Your task to perform on an android device: open a bookmark in the chrome app Image 0: 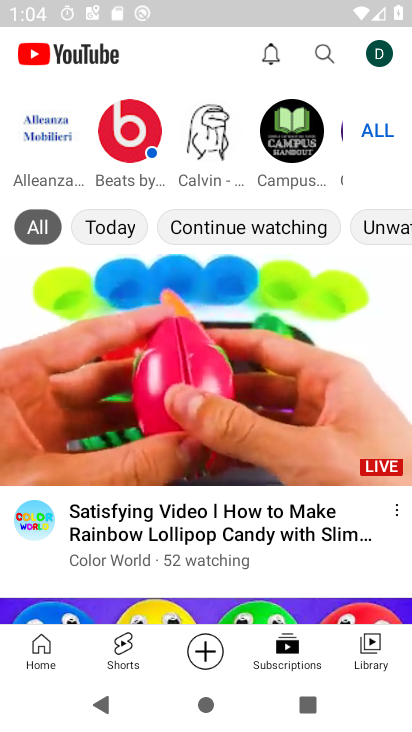
Step 0: press home button
Your task to perform on an android device: open a bookmark in the chrome app Image 1: 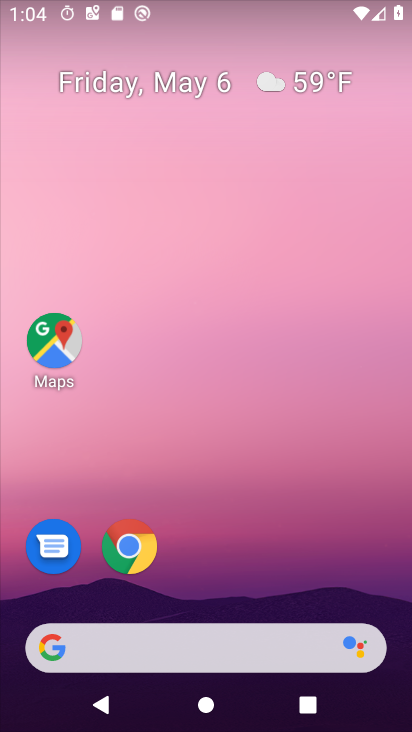
Step 1: click (132, 548)
Your task to perform on an android device: open a bookmark in the chrome app Image 2: 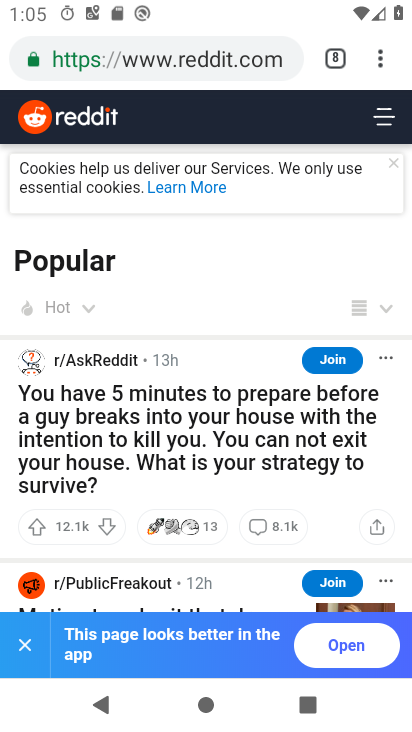
Step 2: click (388, 64)
Your task to perform on an android device: open a bookmark in the chrome app Image 3: 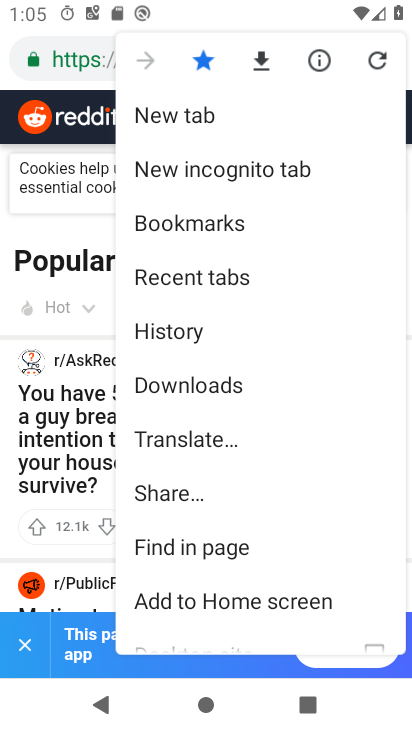
Step 3: click (212, 234)
Your task to perform on an android device: open a bookmark in the chrome app Image 4: 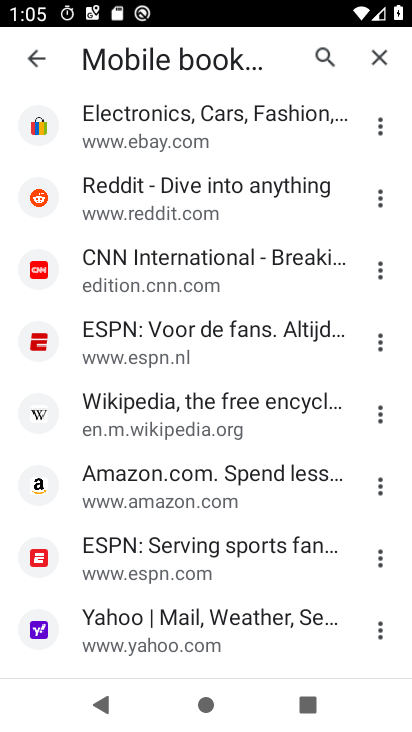
Step 4: click (162, 332)
Your task to perform on an android device: open a bookmark in the chrome app Image 5: 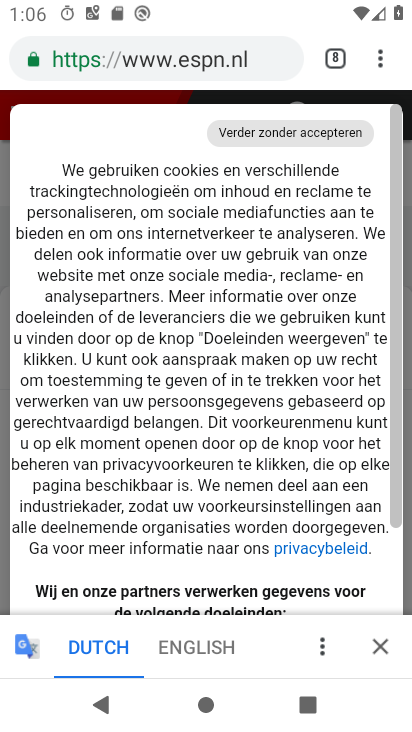
Step 5: task complete